Your task to perform on an android device: turn off notifications in google photos Image 0: 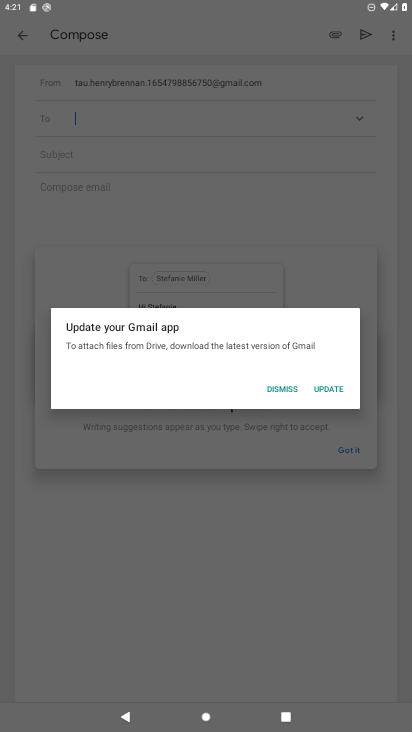
Step 0: click (313, 383)
Your task to perform on an android device: turn off notifications in google photos Image 1: 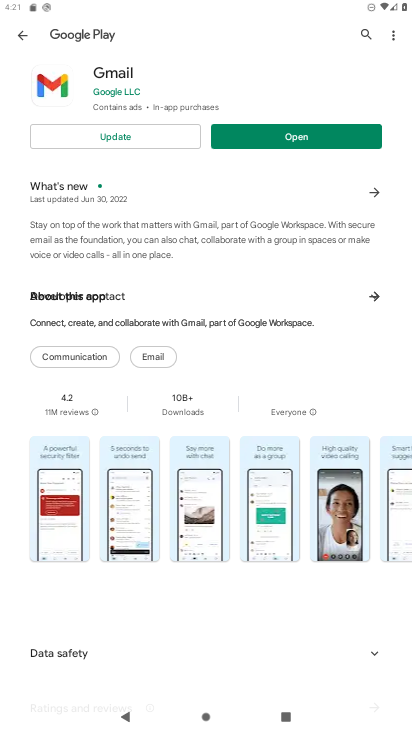
Step 1: press home button
Your task to perform on an android device: turn off notifications in google photos Image 2: 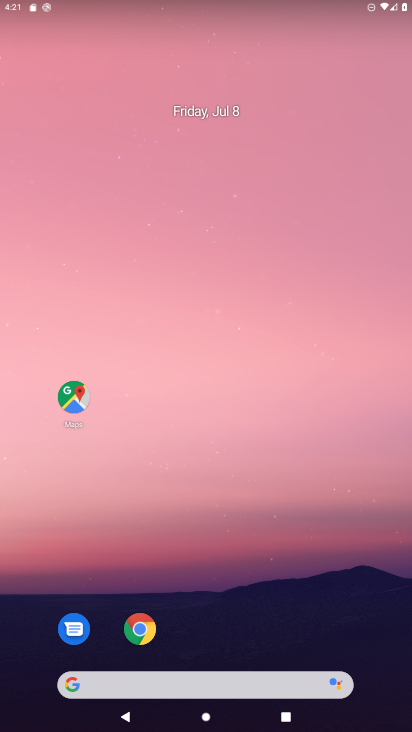
Step 2: drag from (257, 613) to (260, 224)
Your task to perform on an android device: turn off notifications in google photos Image 3: 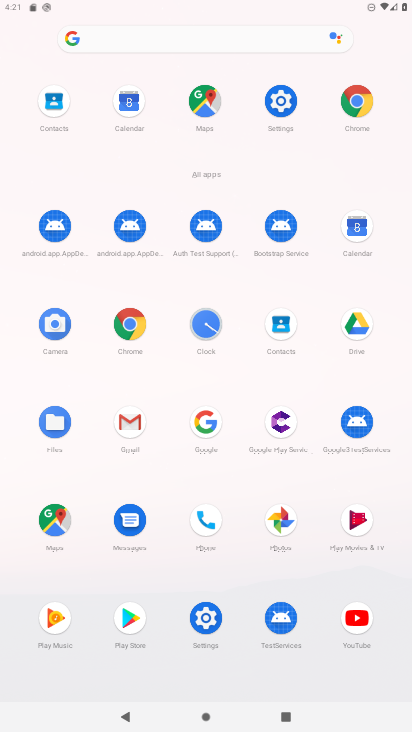
Step 3: click (291, 538)
Your task to perform on an android device: turn off notifications in google photos Image 4: 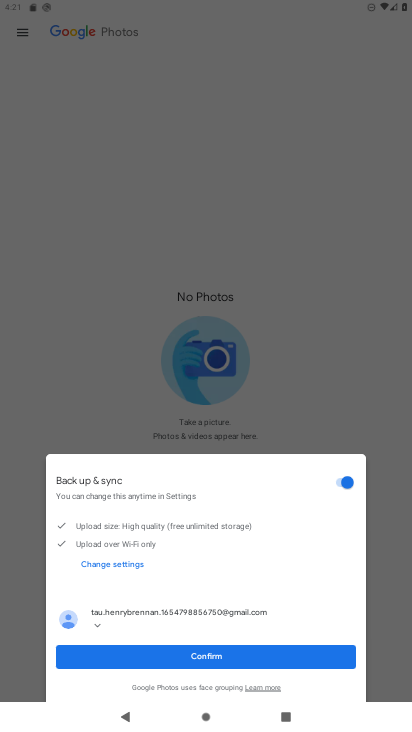
Step 4: click (218, 649)
Your task to perform on an android device: turn off notifications in google photos Image 5: 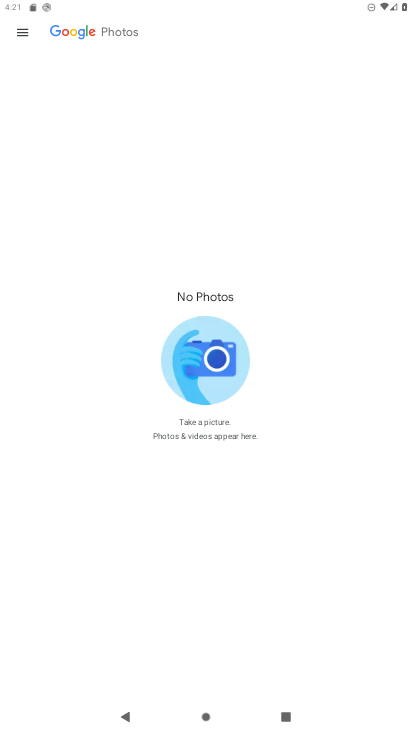
Step 5: task complete